Your task to perform on an android device: Go to calendar. Show me events next week Image 0: 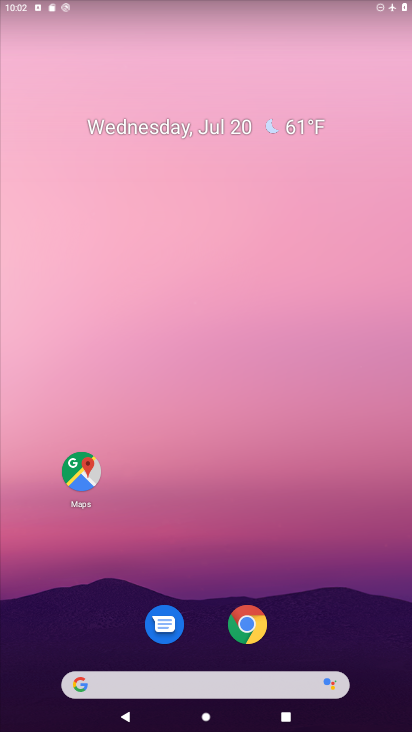
Step 0: drag from (205, 596) to (242, 61)
Your task to perform on an android device: Go to calendar. Show me events next week Image 1: 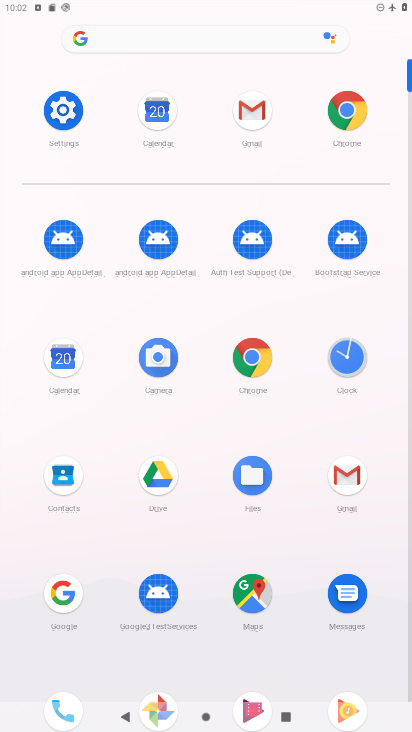
Step 1: click (83, 357)
Your task to perform on an android device: Go to calendar. Show me events next week Image 2: 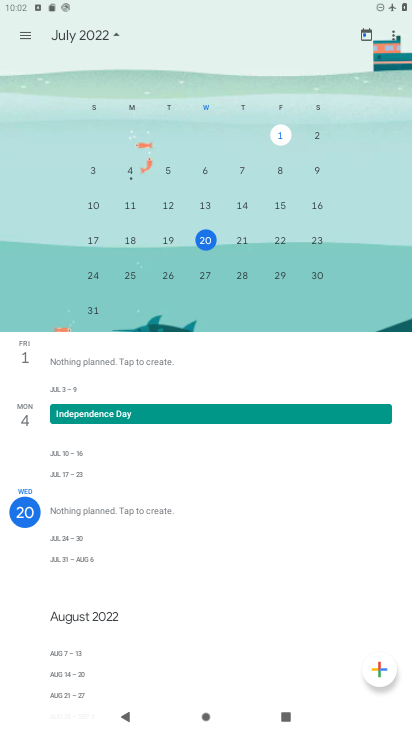
Step 2: click (245, 275)
Your task to perform on an android device: Go to calendar. Show me events next week Image 3: 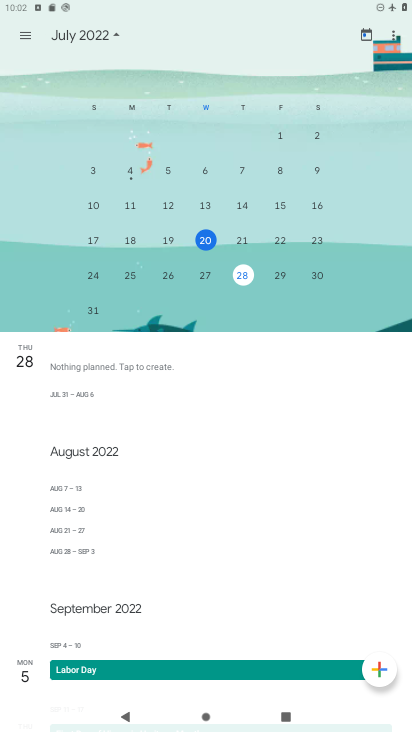
Step 3: click (101, 279)
Your task to perform on an android device: Go to calendar. Show me events next week Image 4: 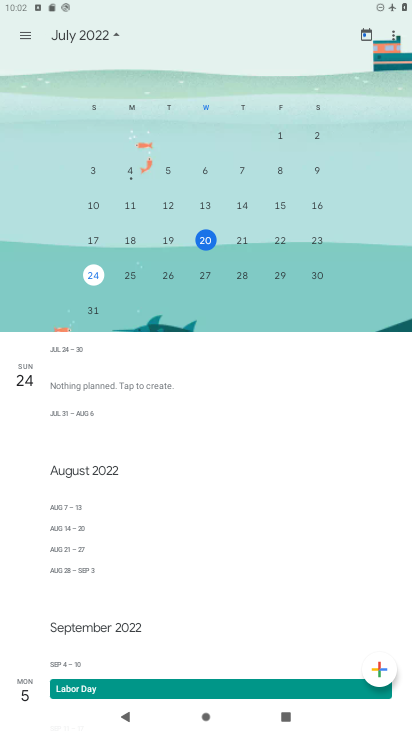
Step 4: task complete